Your task to perform on an android device: all mails in gmail Image 0: 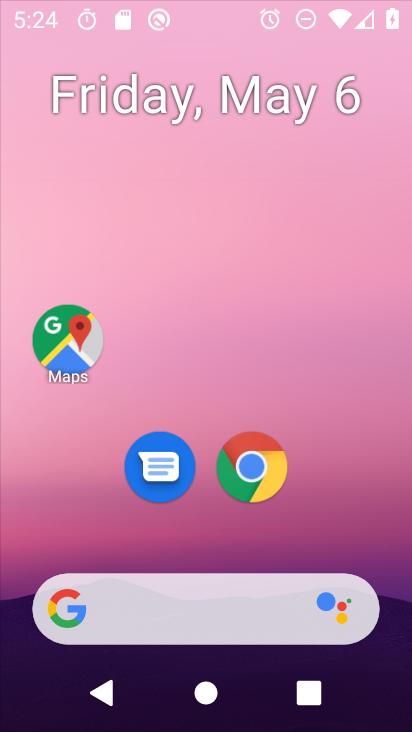
Step 0: drag from (330, 530) to (199, 44)
Your task to perform on an android device: all mails in gmail Image 1: 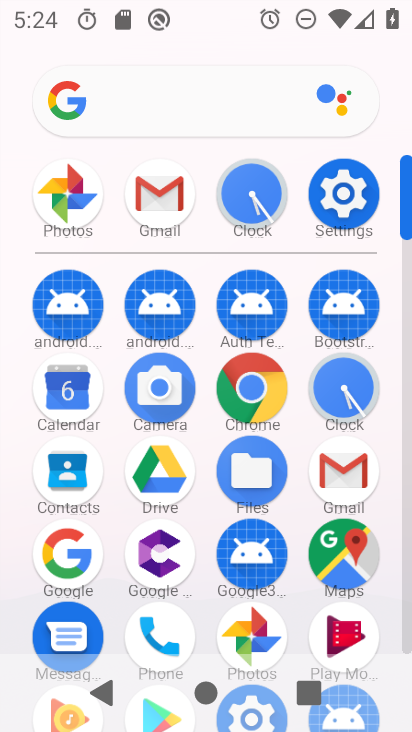
Step 1: click (156, 208)
Your task to perform on an android device: all mails in gmail Image 2: 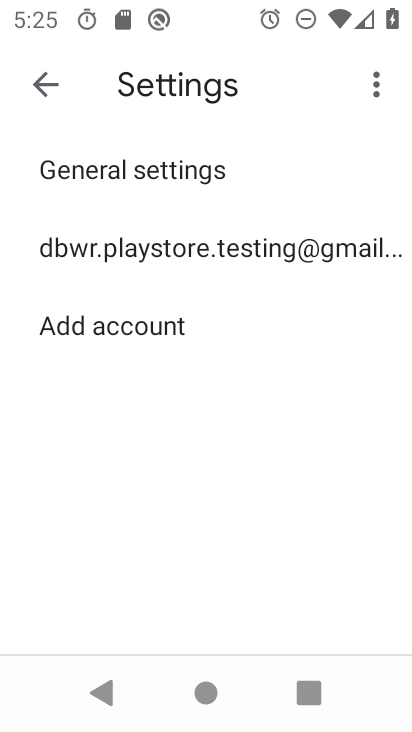
Step 2: click (208, 245)
Your task to perform on an android device: all mails in gmail Image 3: 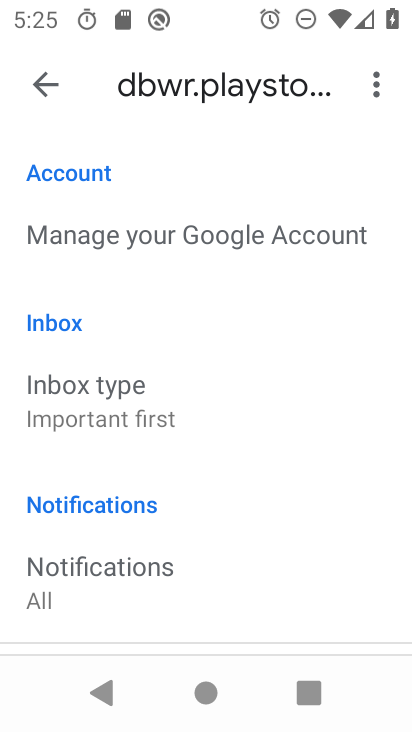
Step 3: click (59, 87)
Your task to perform on an android device: all mails in gmail Image 4: 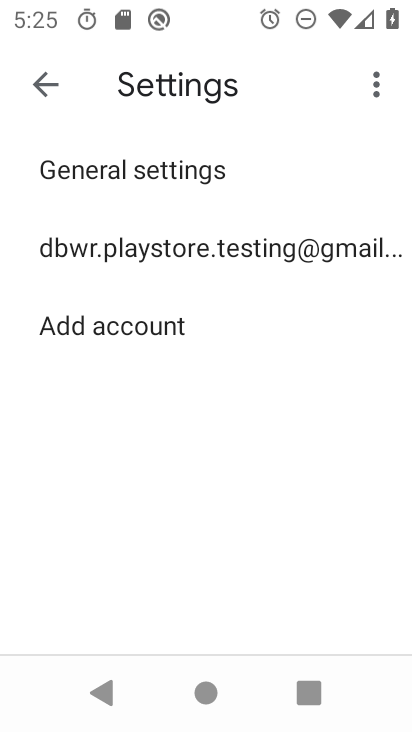
Step 4: click (58, 82)
Your task to perform on an android device: all mails in gmail Image 5: 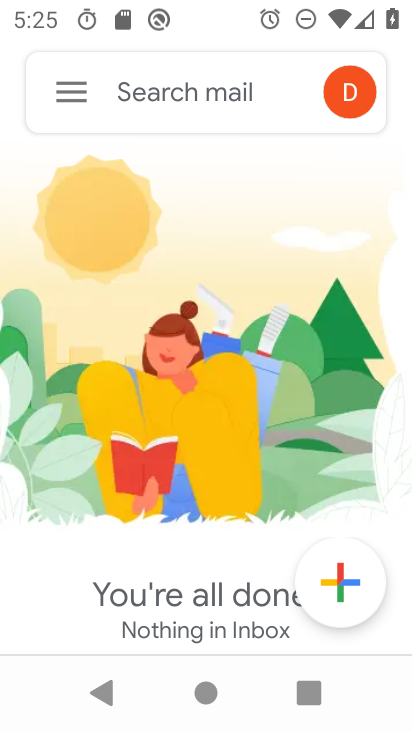
Step 5: click (57, 82)
Your task to perform on an android device: all mails in gmail Image 6: 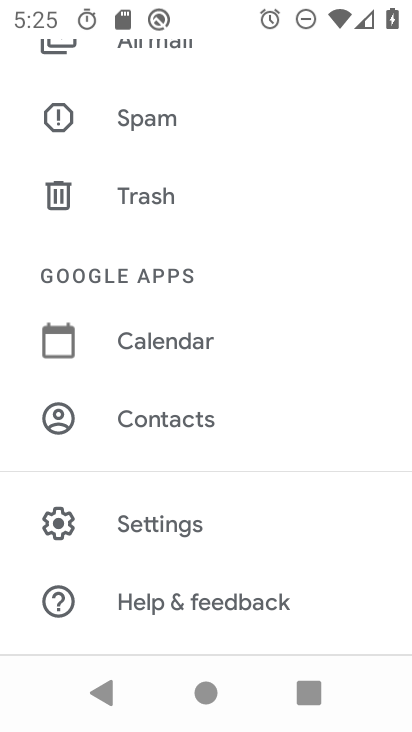
Step 6: drag from (159, 112) to (168, 325)
Your task to perform on an android device: all mails in gmail Image 7: 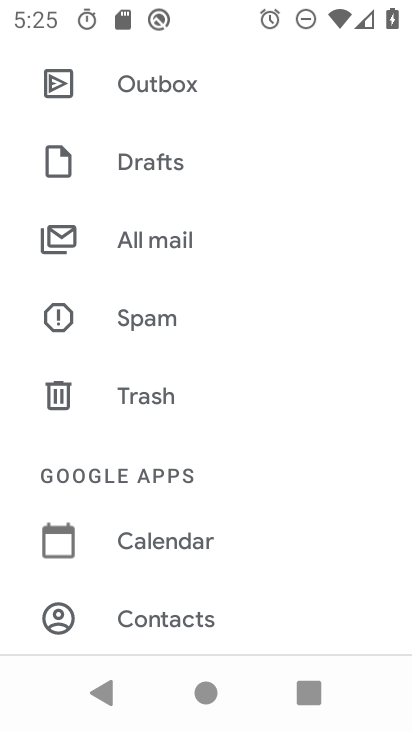
Step 7: click (130, 236)
Your task to perform on an android device: all mails in gmail Image 8: 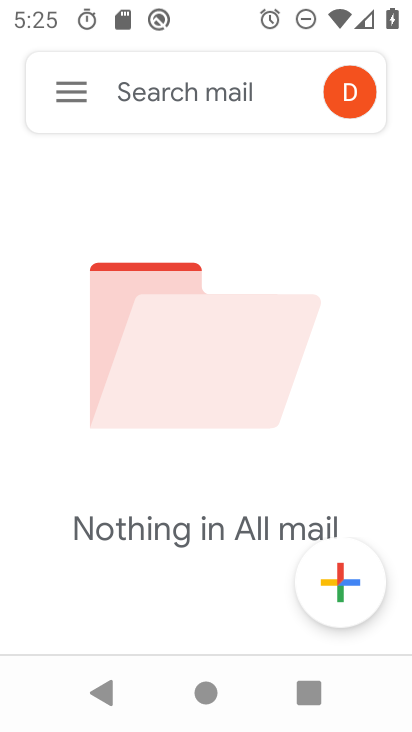
Step 8: task complete